Your task to perform on an android device: open device folders in google photos Image 0: 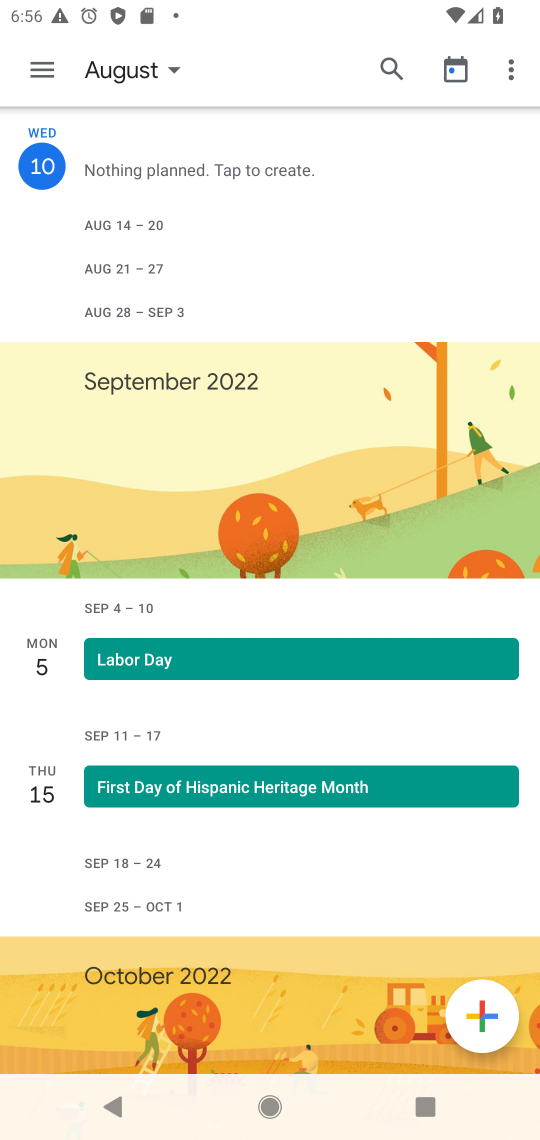
Step 0: press home button
Your task to perform on an android device: open device folders in google photos Image 1: 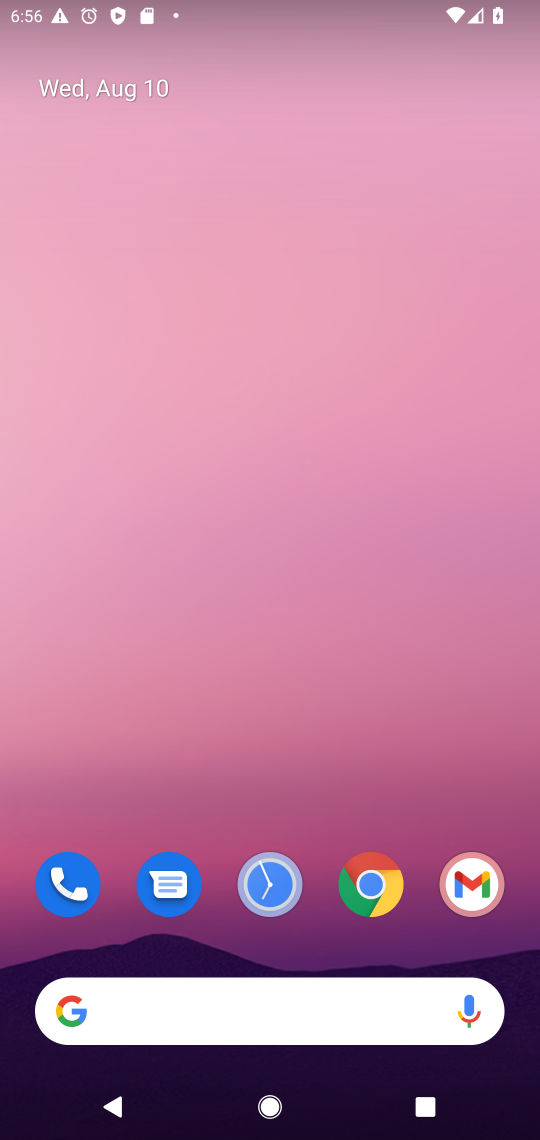
Step 1: drag from (57, 1098) to (407, 188)
Your task to perform on an android device: open device folders in google photos Image 2: 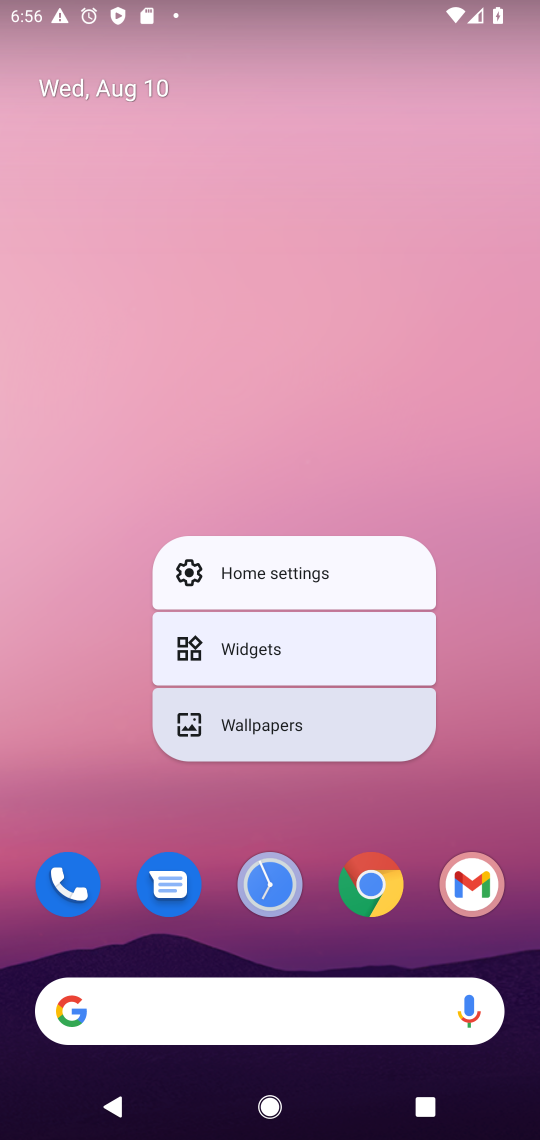
Step 2: drag from (60, 1075) to (242, 329)
Your task to perform on an android device: open device folders in google photos Image 3: 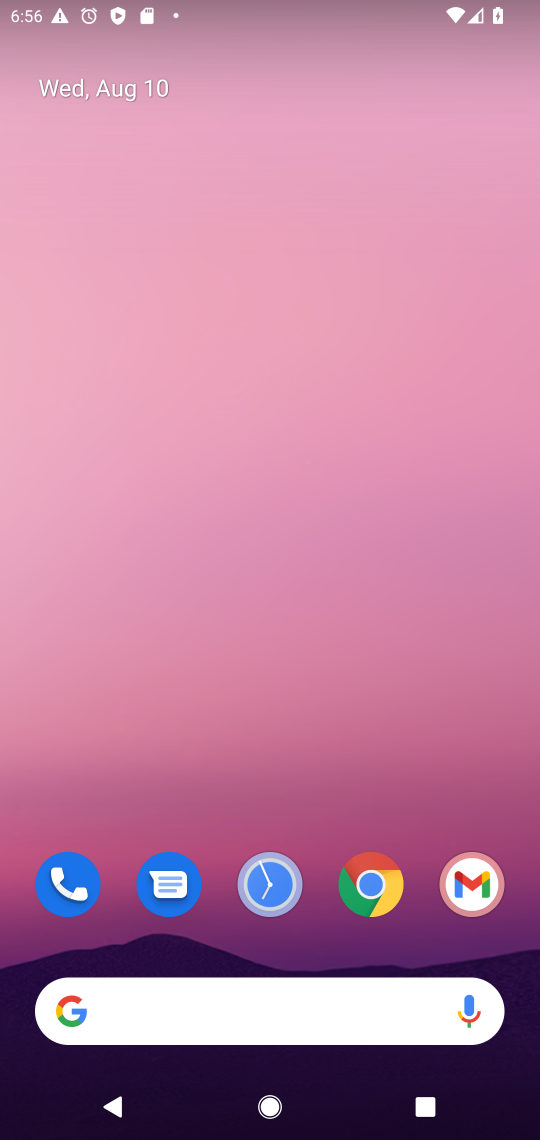
Step 3: drag from (38, 1064) to (300, 485)
Your task to perform on an android device: open device folders in google photos Image 4: 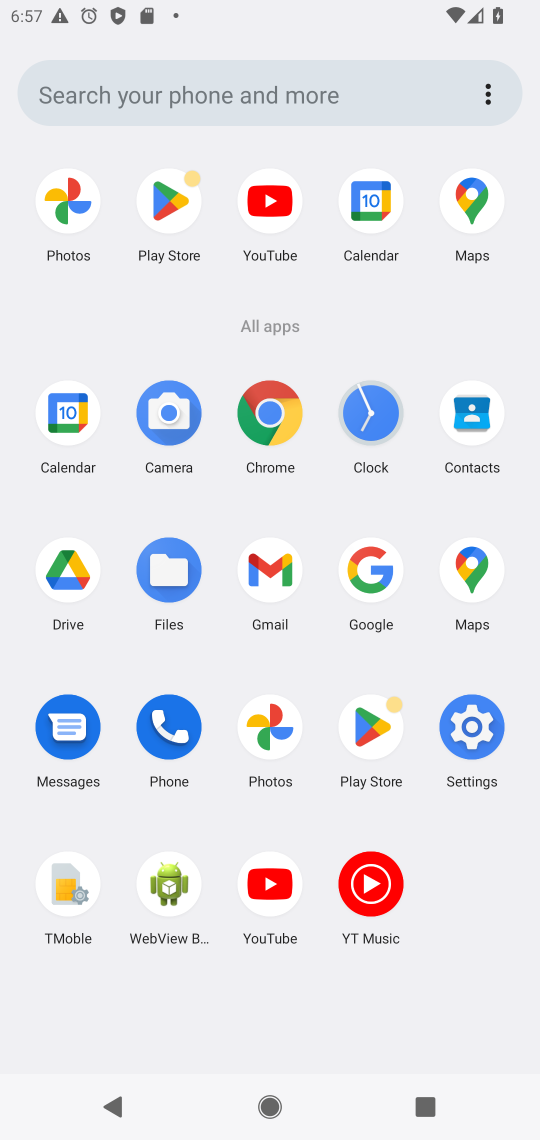
Step 4: click (251, 729)
Your task to perform on an android device: open device folders in google photos Image 5: 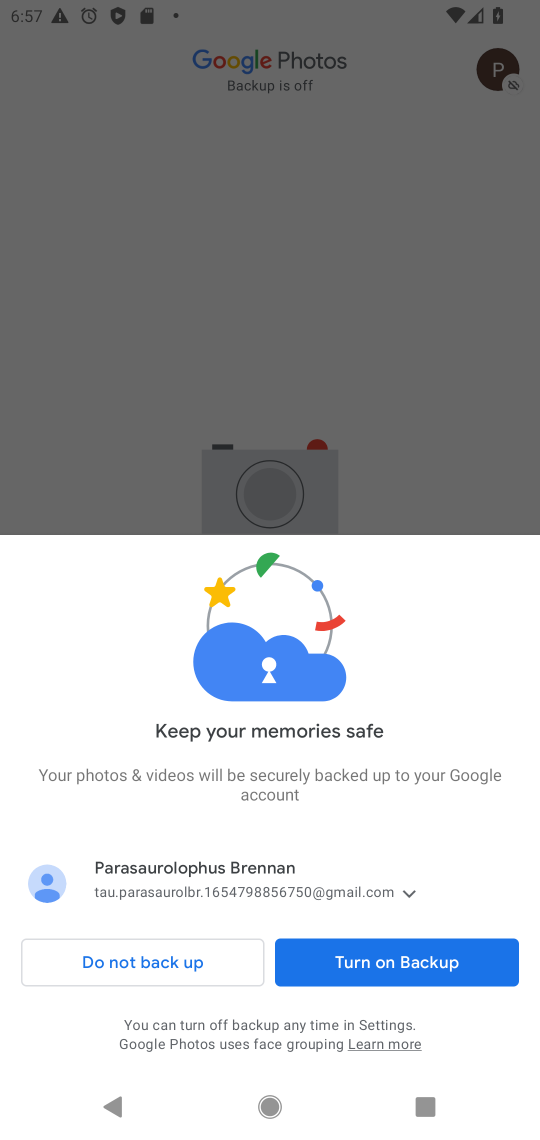
Step 5: click (134, 965)
Your task to perform on an android device: open device folders in google photos Image 6: 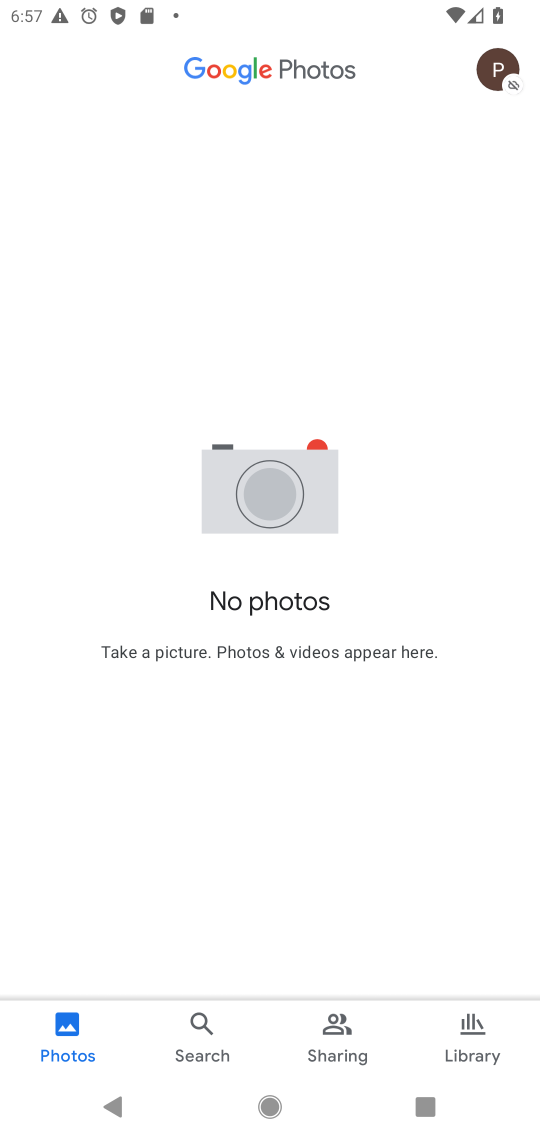
Step 6: click (468, 1062)
Your task to perform on an android device: open device folders in google photos Image 7: 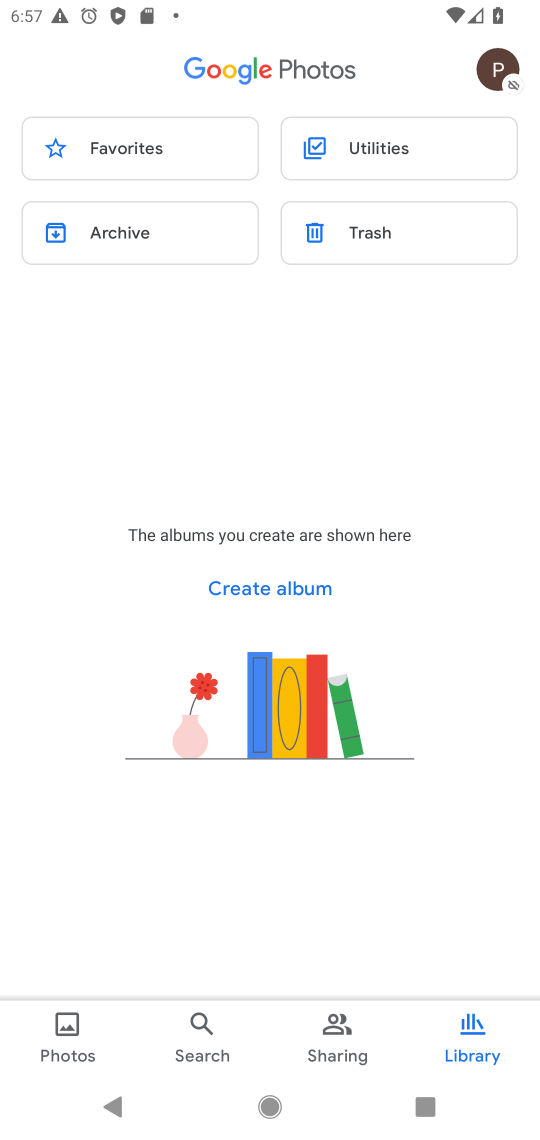
Step 7: task complete